Your task to perform on an android device: Open Maps and search for coffee Image 0: 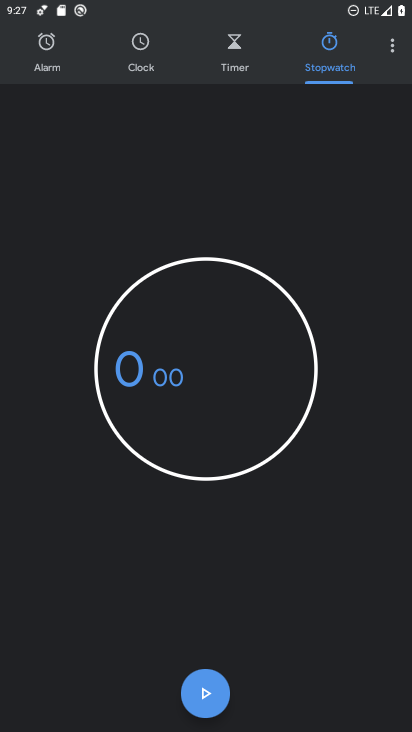
Step 0: press home button
Your task to perform on an android device: Open Maps and search for coffee Image 1: 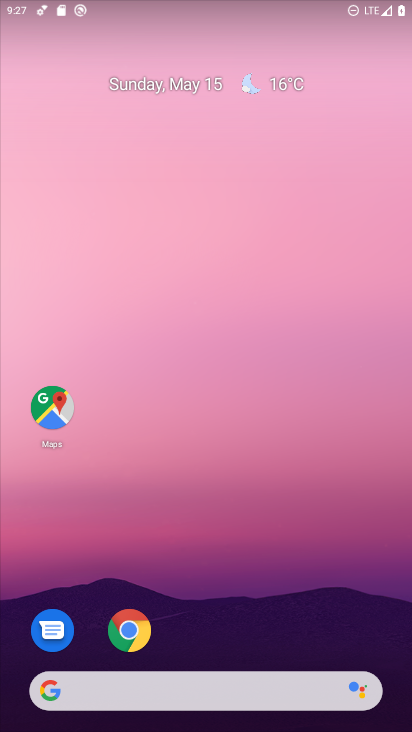
Step 1: drag from (219, 619) to (256, 164)
Your task to perform on an android device: Open Maps and search for coffee Image 2: 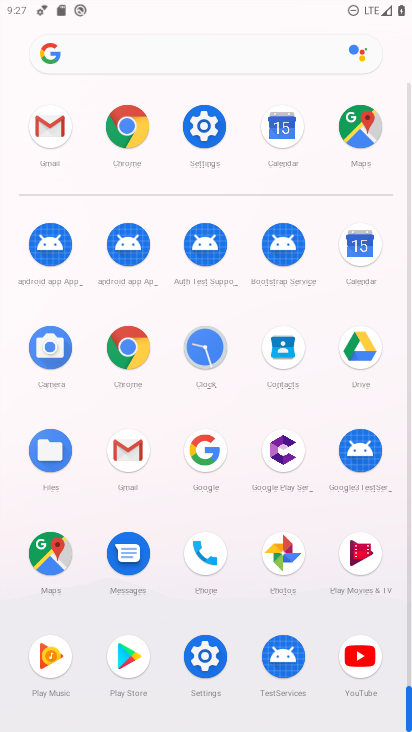
Step 2: click (168, 55)
Your task to perform on an android device: Open Maps and search for coffee Image 3: 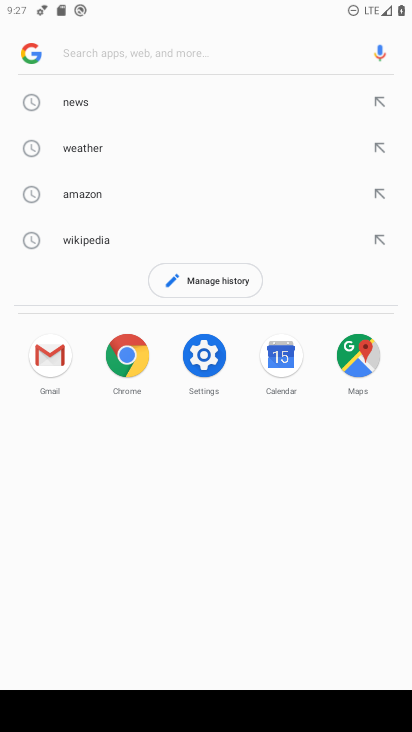
Step 3: click (138, 58)
Your task to perform on an android device: Open Maps and search for coffee Image 4: 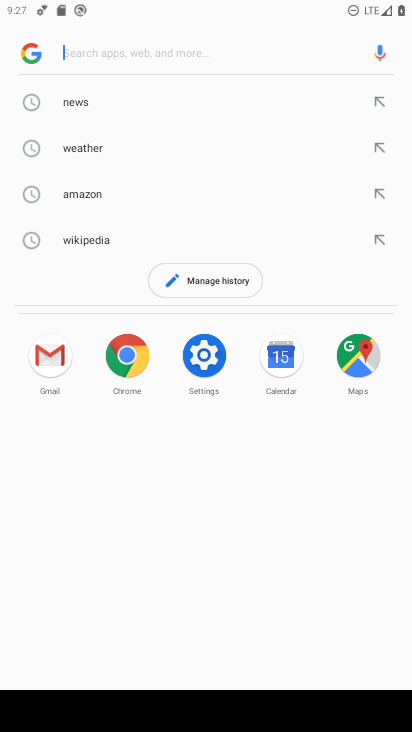
Step 4: press back button
Your task to perform on an android device: Open Maps and search for coffee Image 5: 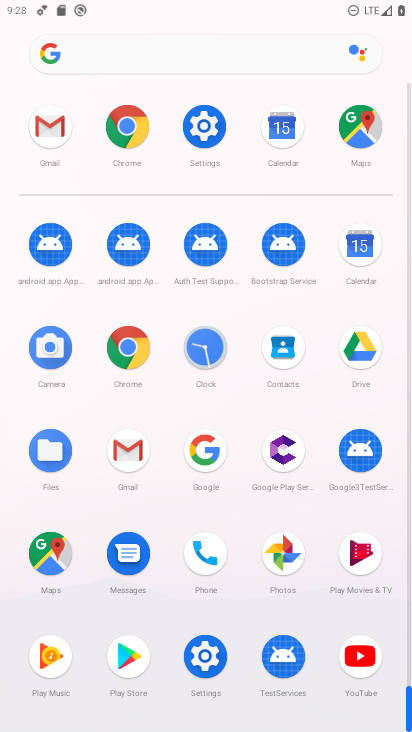
Step 5: click (352, 130)
Your task to perform on an android device: Open Maps and search for coffee Image 6: 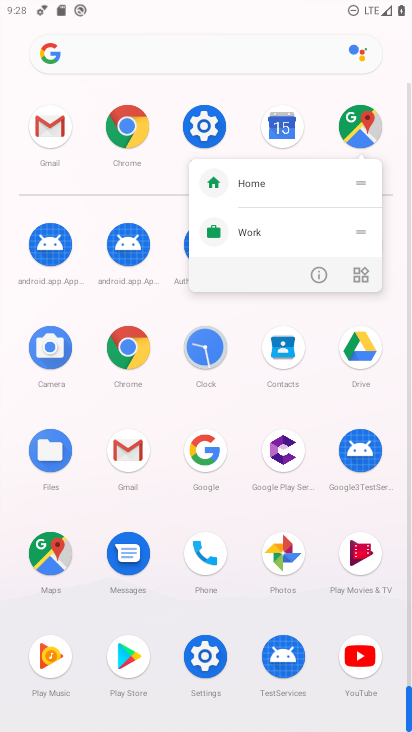
Step 6: click (310, 284)
Your task to perform on an android device: Open Maps and search for coffee Image 7: 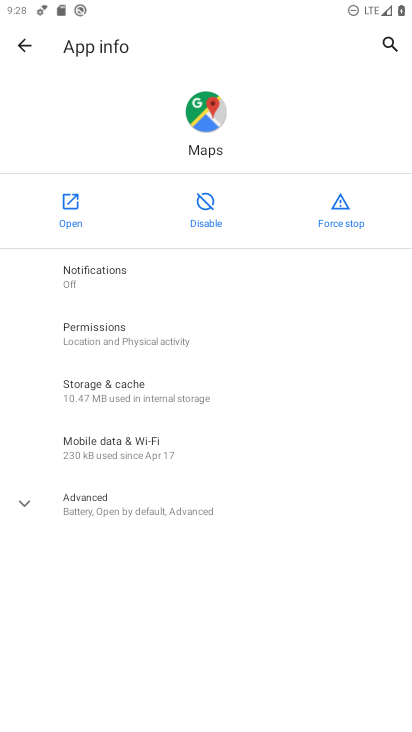
Step 7: click (70, 202)
Your task to perform on an android device: Open Maps and search for coffee Image 8: 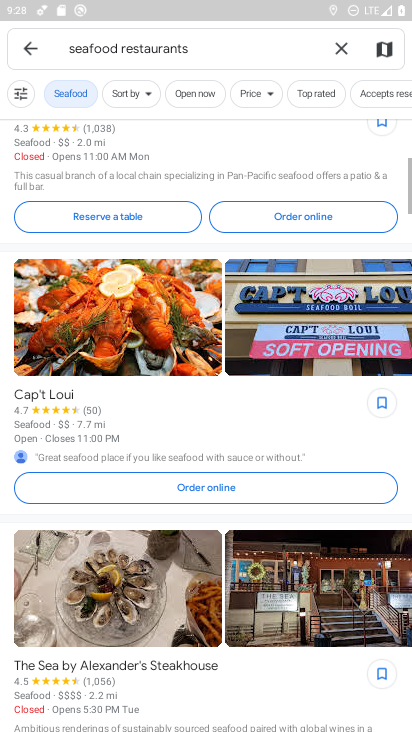
Step 8: click (343, 46)
Your task to perform on an android device: Open Maps and search for coffee Image 9: 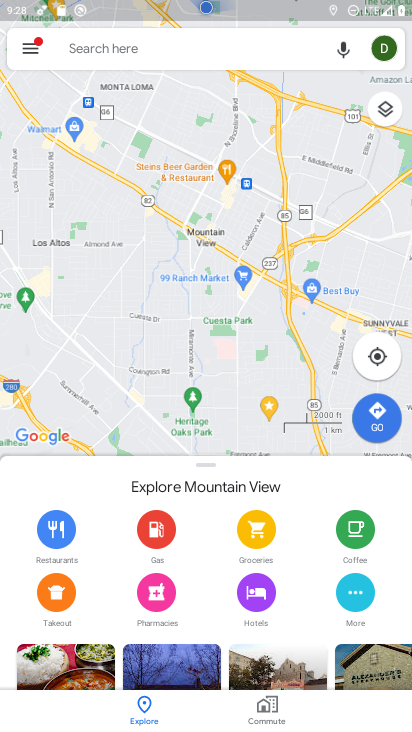
Step 9: click (118, 61)
Your task to perform on an android device: Open Maps and search for coffee Image 10: 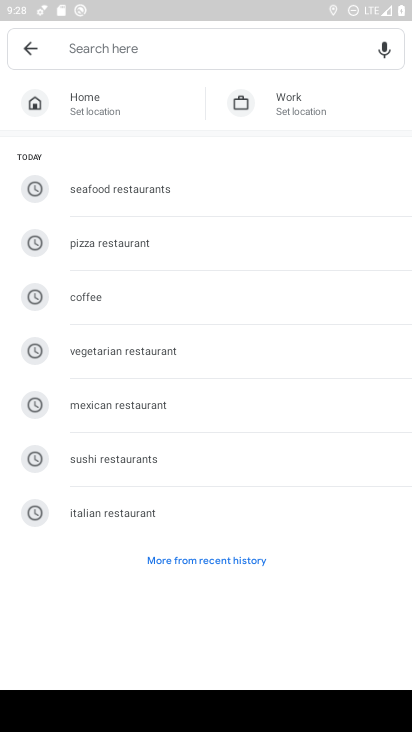
Step 10: click (87, 288)
Your task to perform on an android device: Open Maps and search for coffee Image 11: 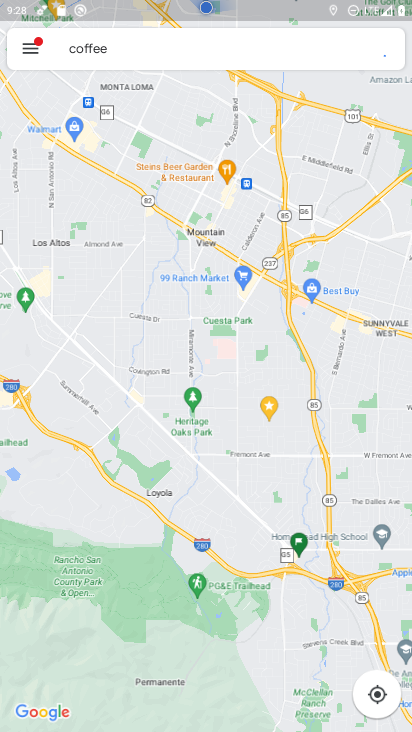
Step 11: task complete